Your task to perform on an android device: Go to Google maps Image 0: 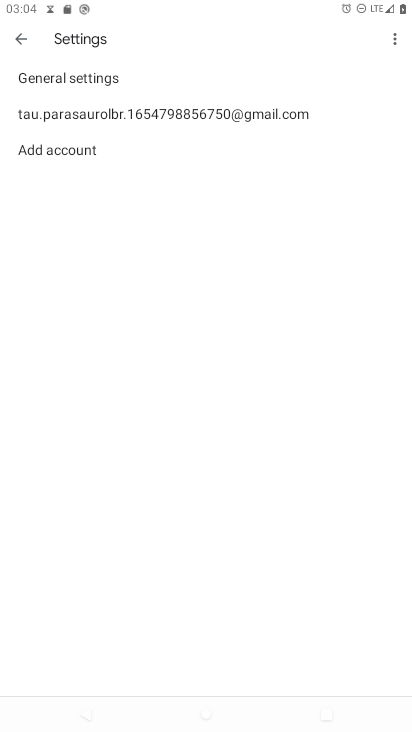
Step 0: press home button
Your task to perform on an android device: Go to Google maps Image 1: 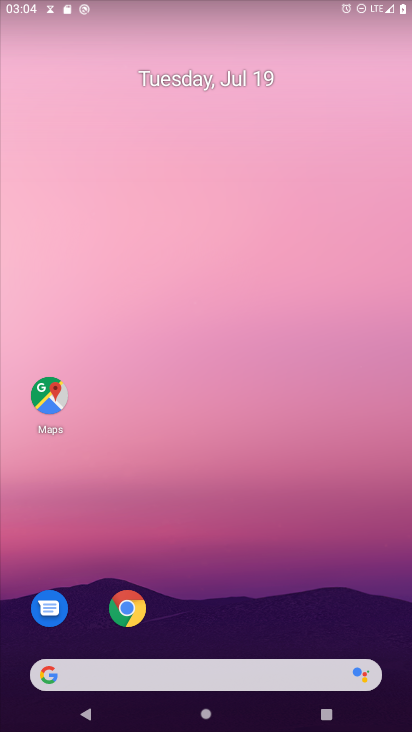
Step 1: drag from (285, 641) to (348, 1)
Your task to perform on an android device: Go to Google maps Image 2: 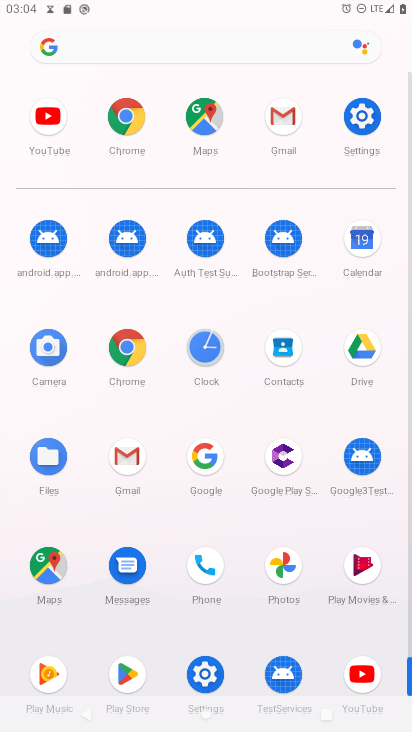
Step 2: click (46, 560)
Your task to perform on an android device: Go to Google maps Image 3: 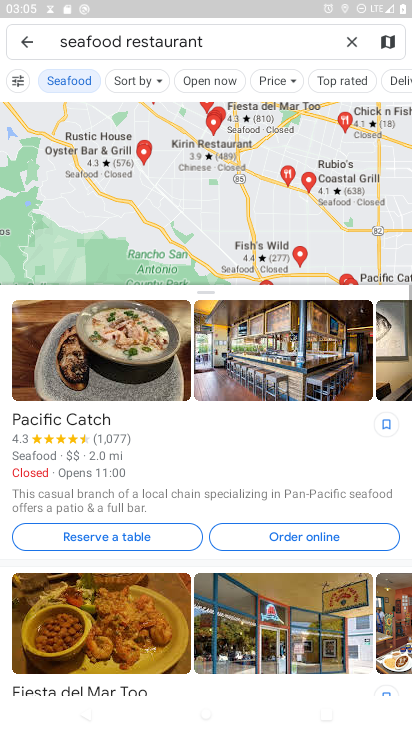
Step 3: task complete